Your task to perform on an android device: Open Reddit.com Image 0: 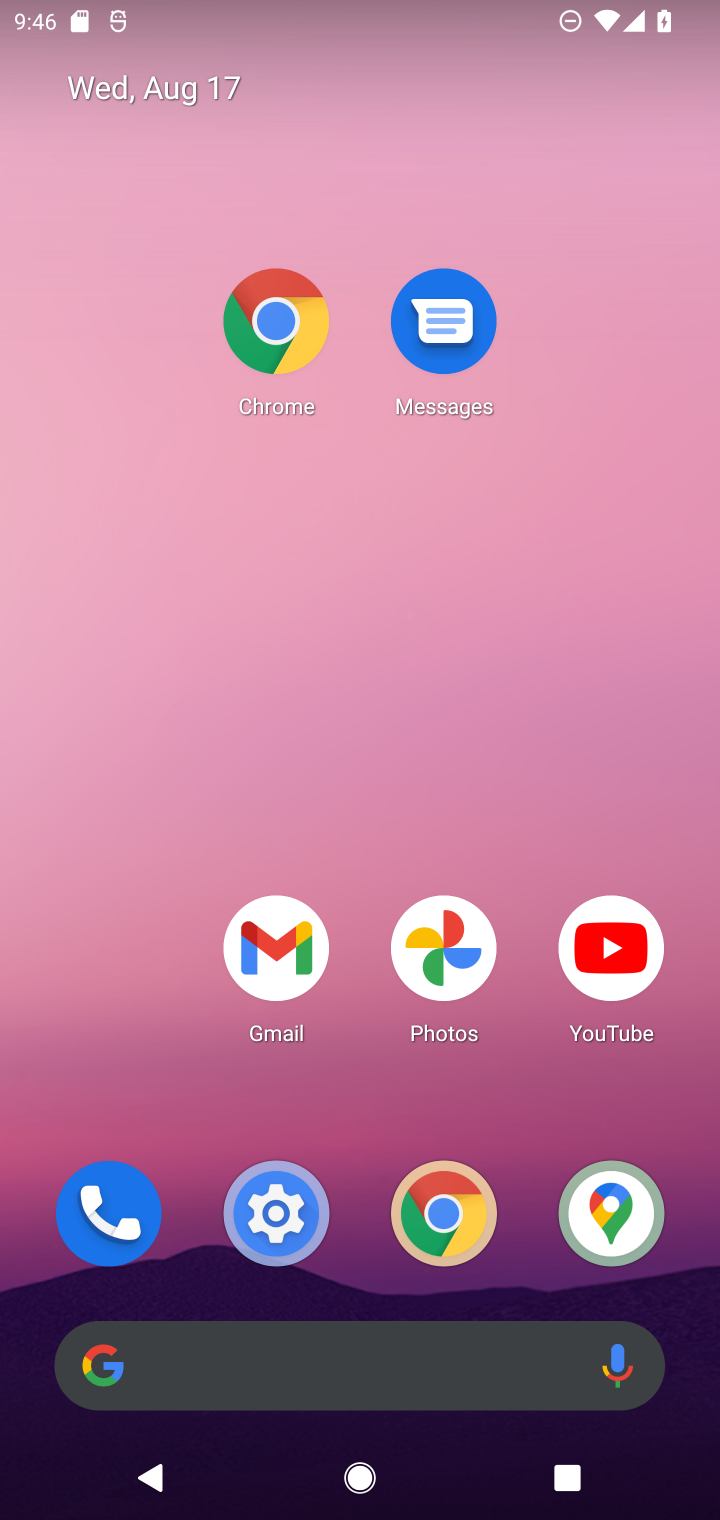
Step 0: click (485, 1262)
Your task to perform on an android device: Open Reddit.com Image 1: 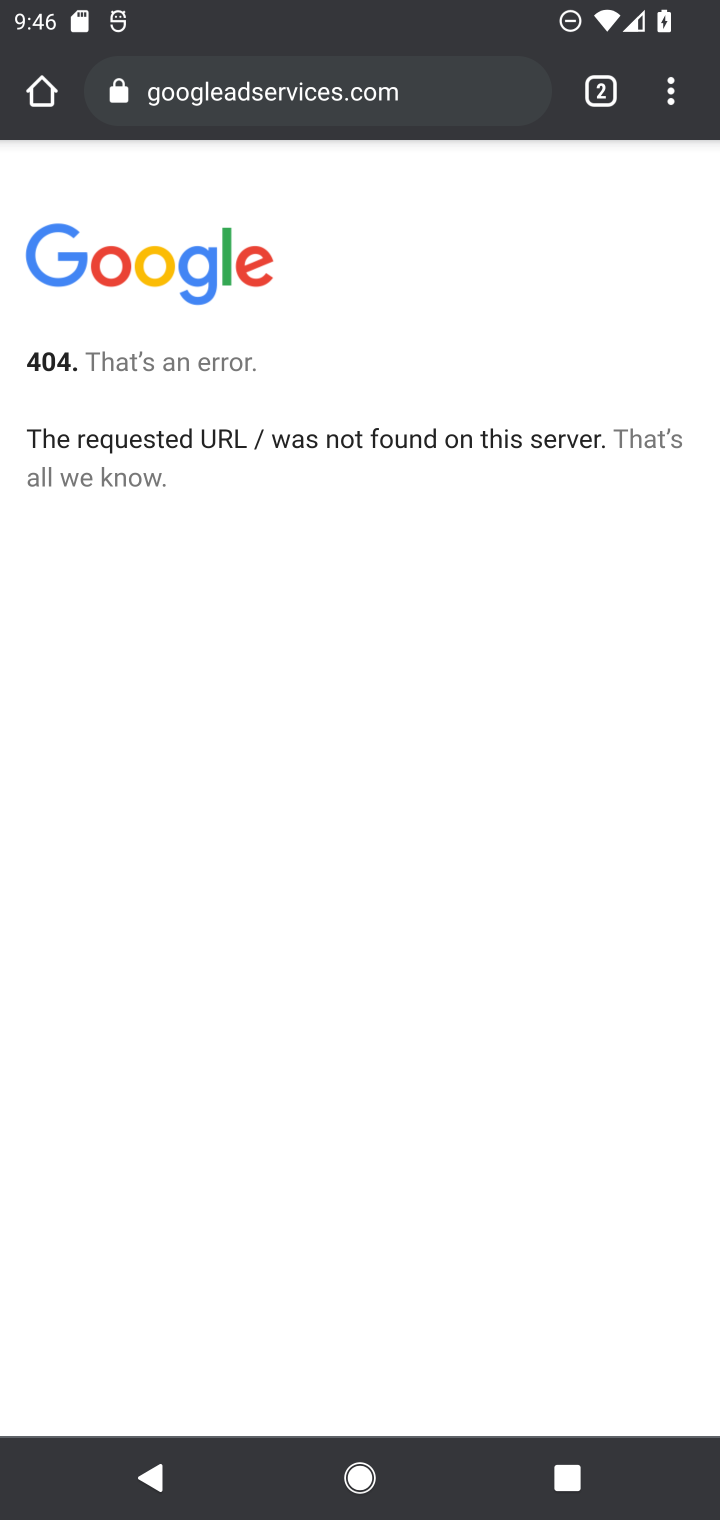
Step 1: click (451, 115)
Your task to perform on an android device: Open Reddit.com Image 2: 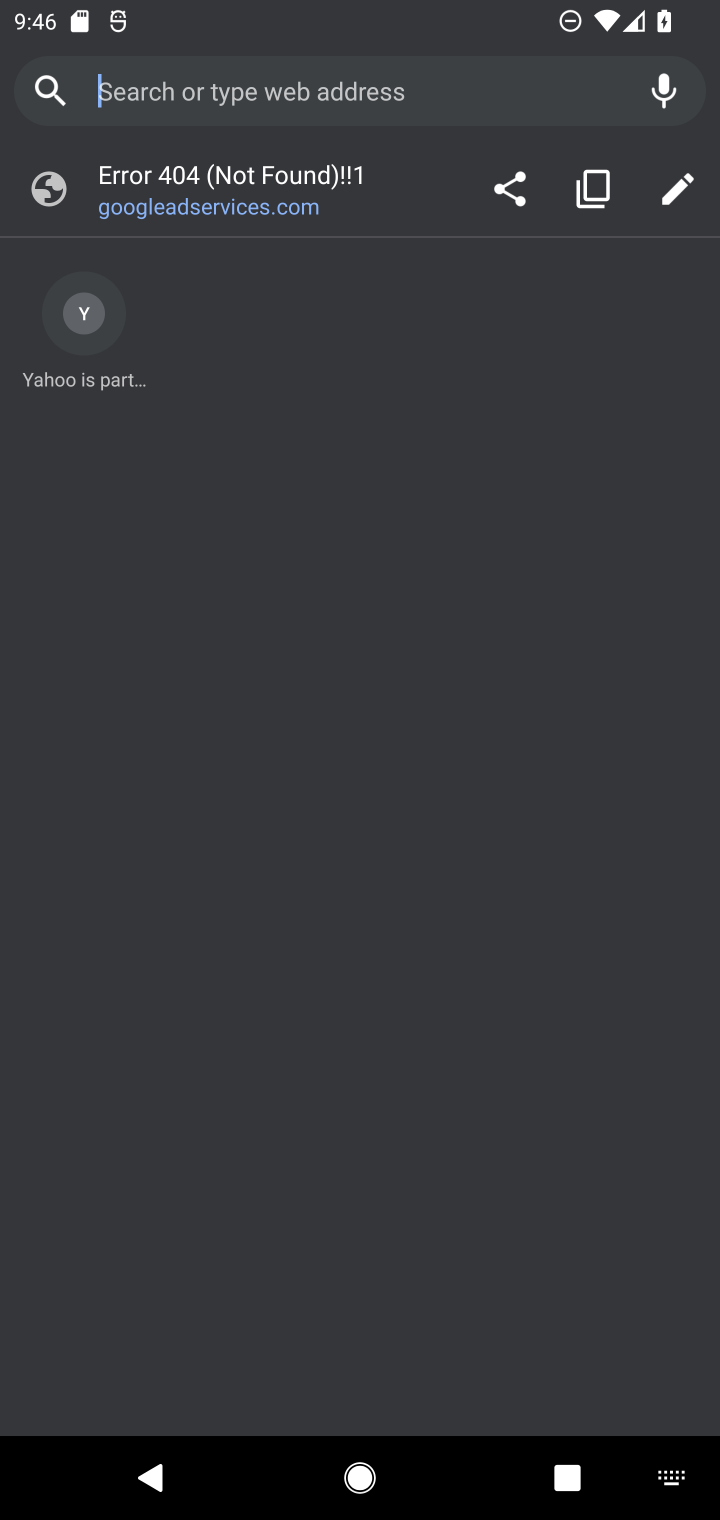
Step 2: type "reddit.com"
Your task to perform on an android device: Open Reddit.com Image 3: 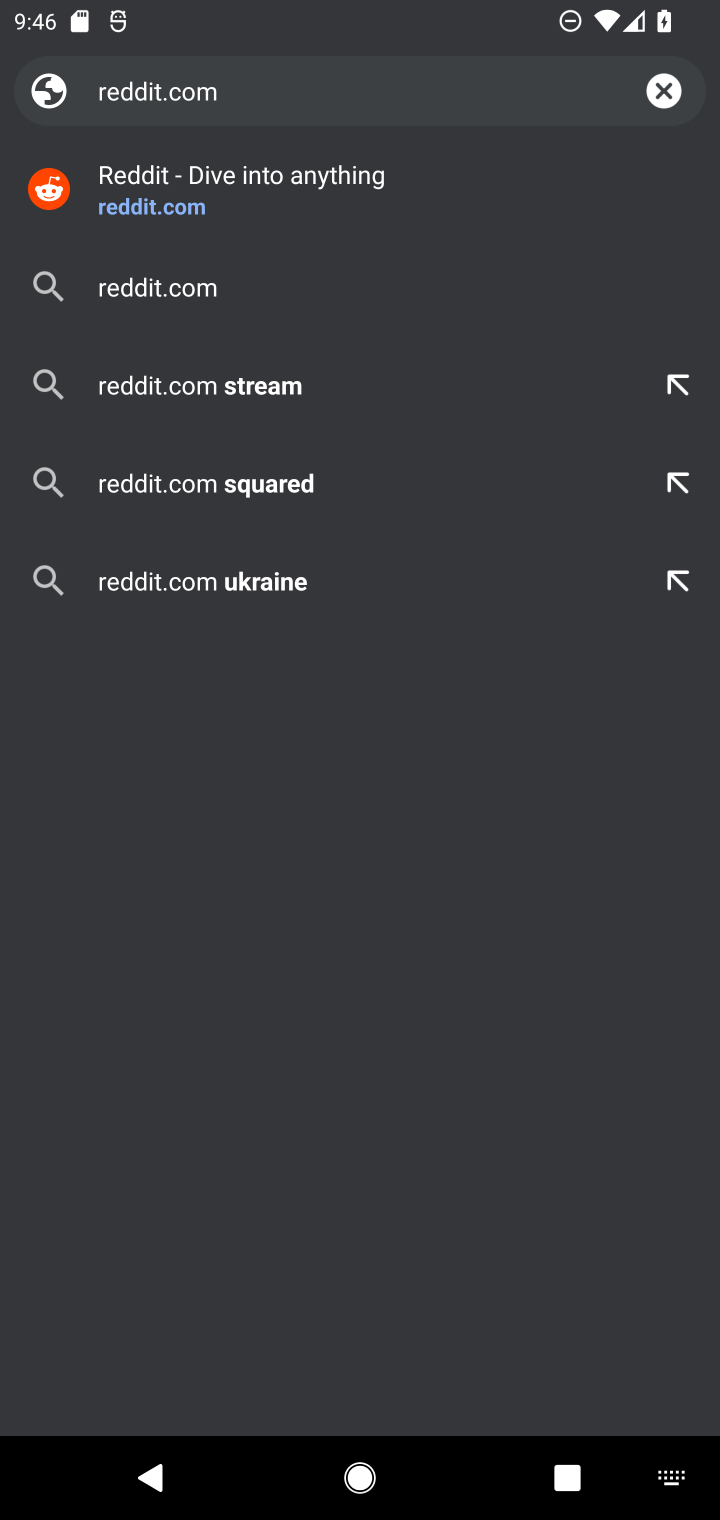
Step 3: click (233, 185)
Your task to perform on an android device: Open Reddit.com Image 4: 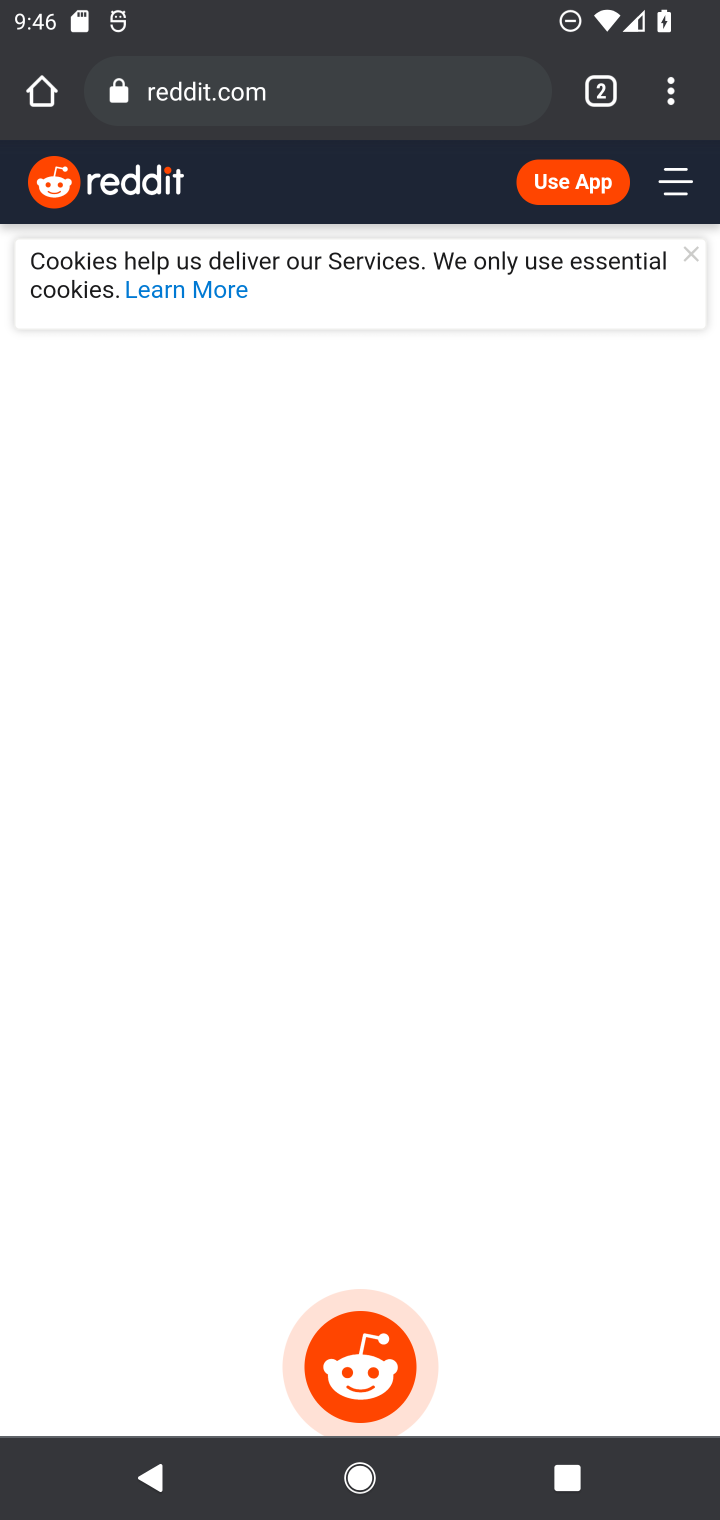
Step 4: task complete